Your task to perform on an android device: uninstall "Facebook Lite" Image 0: 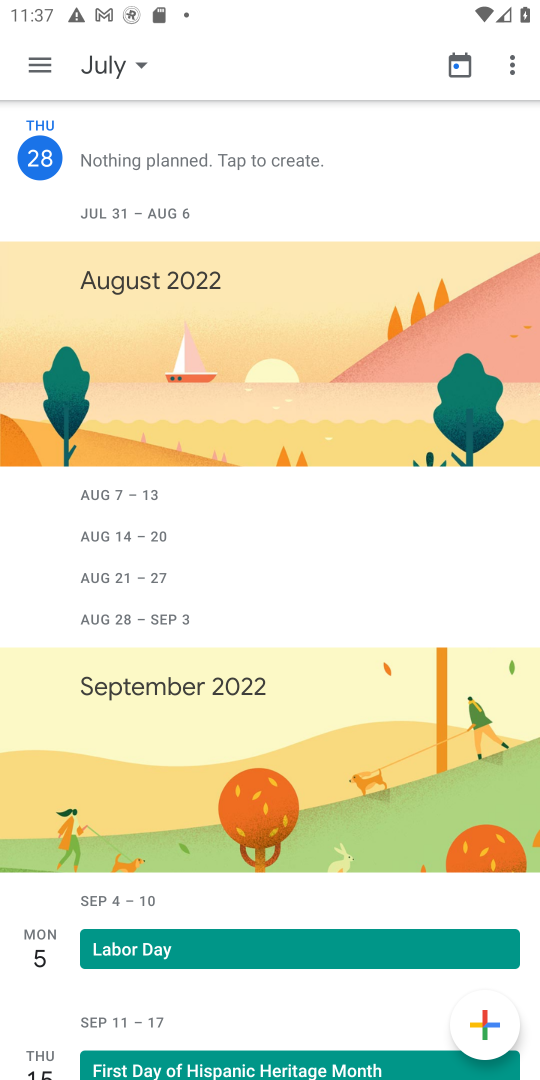
Step 0: press home button
Your task to perform on an android device: uninstall "Facebook Lite" Image 1: 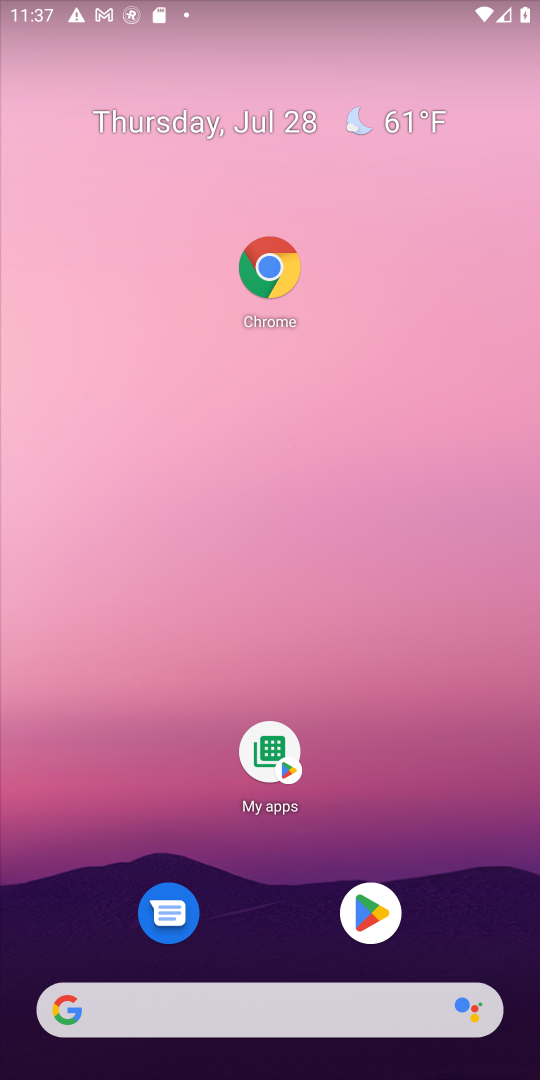
Step 1: click (392, 918)
Your task to perform on an android device: uninstall "Facebook Lite" Image 2: 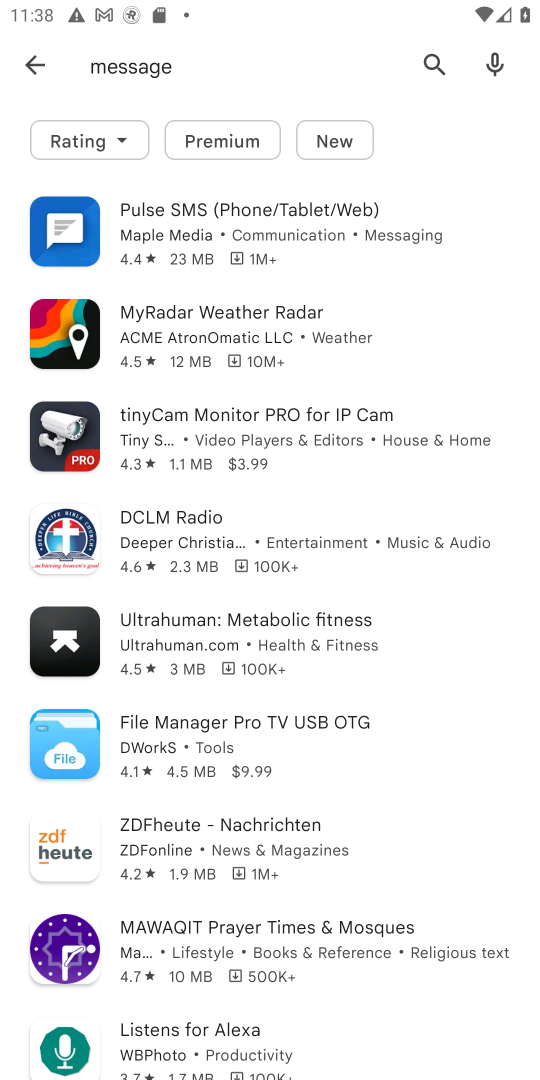
Step 2: click (426, 63)
Your task to perform on an android device: uninstall "Facebook Lite" Image 3: 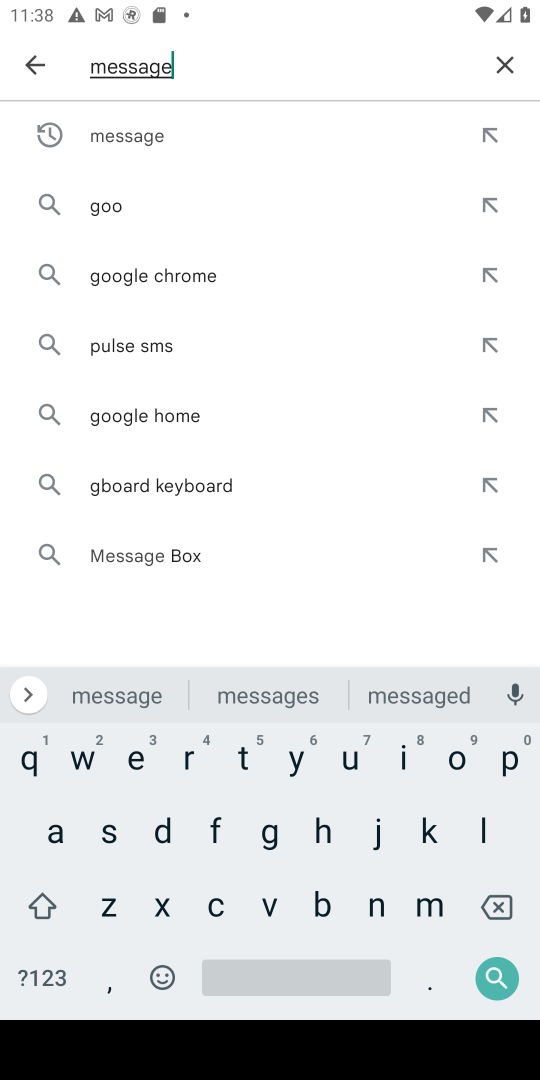
Step 3: click (500, 64)
Your task to perform on an android device: uninstall "Facebook Lite" Image 4: 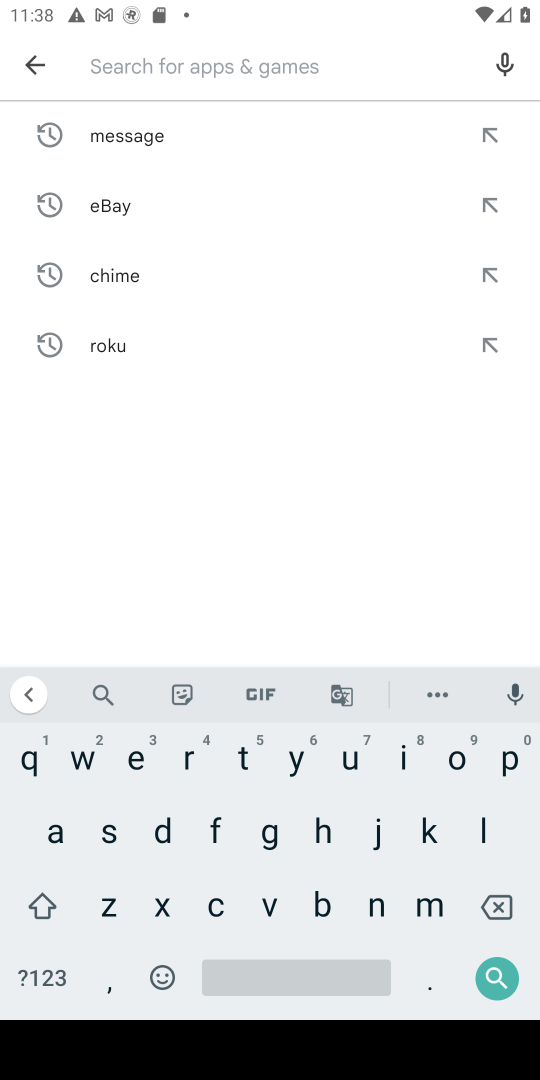
Step 4: click (212, 814)
Your task to perform on an android device: uninstall "Facebook Lite" Image 5: 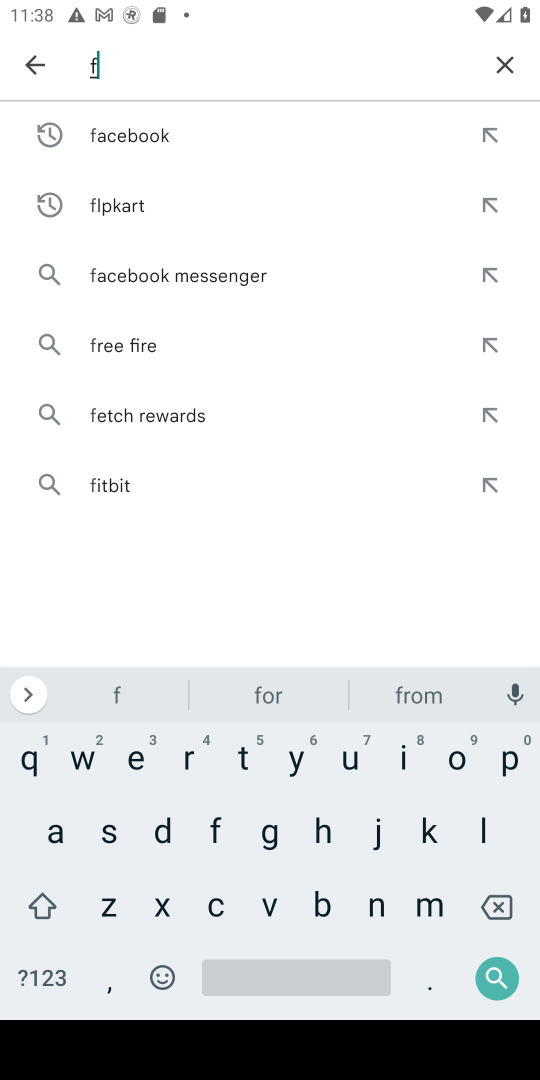
Step 5: click (54, 825)
Your task to perform on an android device: uninstall "Facebook Lite" Image 6: 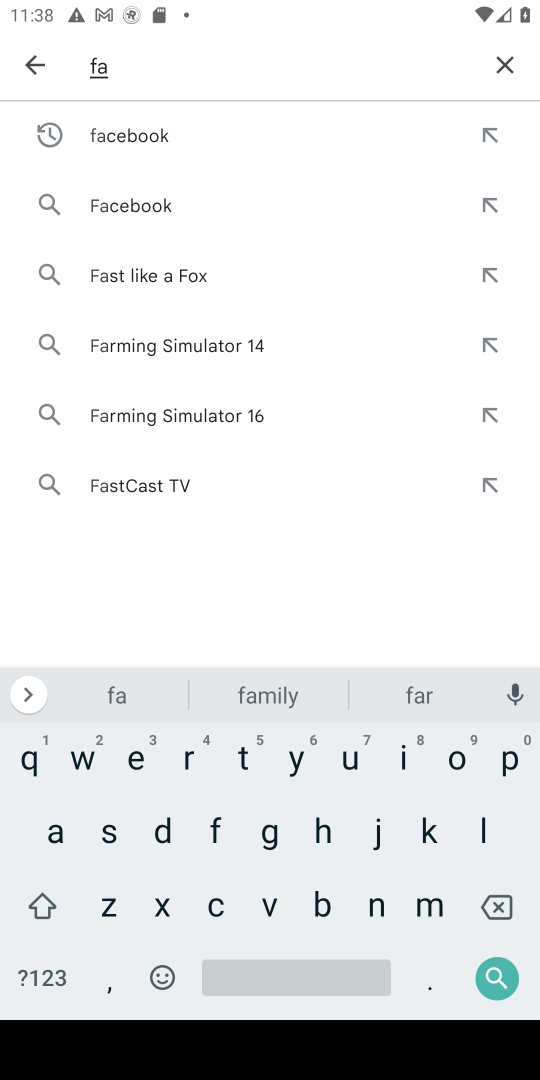
Step 6: click (214, 904)
Your task to perform on an android device: uninstall "Facebook Lite" Image 7: 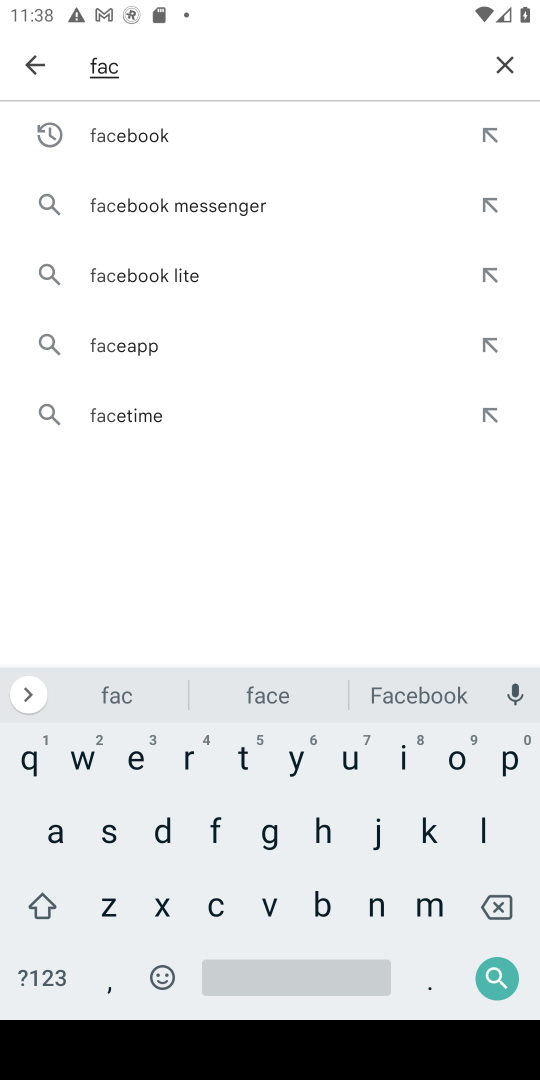
Step 7: click (174, 284)
Your task to perform on an android device: uninstall "Facebook Lite" Image 8: 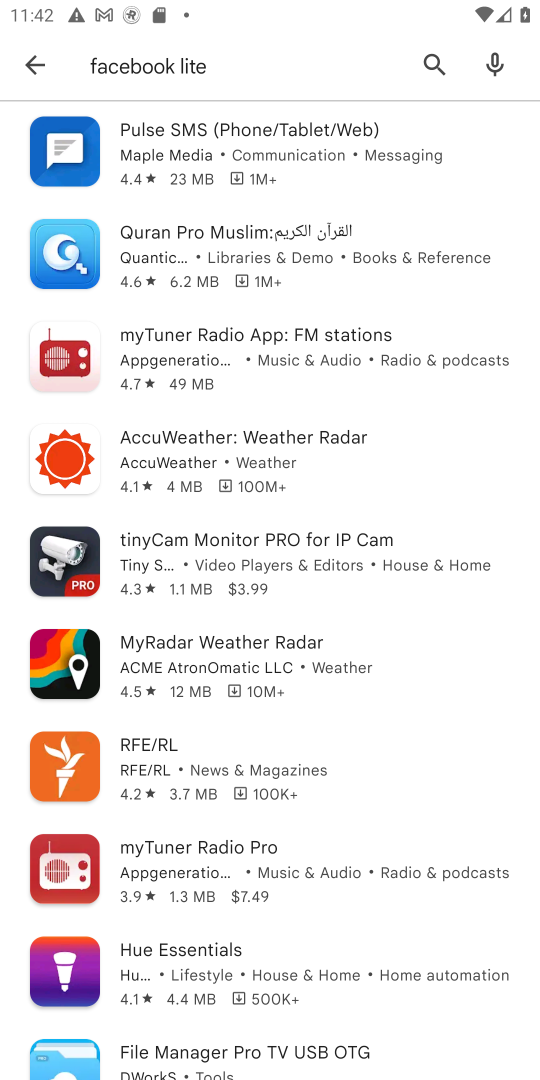
Step 8: task complete